Your task to perform on an android device: Open Google Image 0: 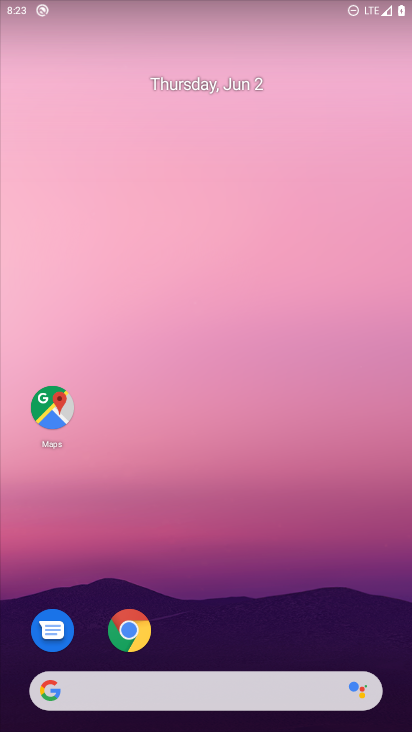
Step 0: drag from (151, 727) to (154, 132)
Your task to perform on an android device: Open Google Image 1: 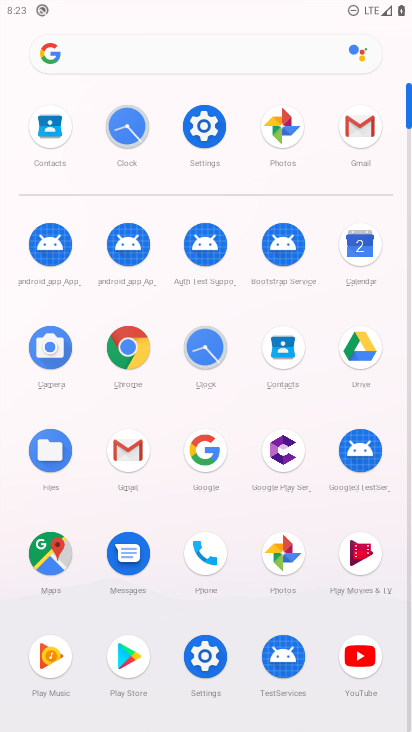
Step 1: click (199, 447)
Your task to perform on an android device: Open Google Image 2: 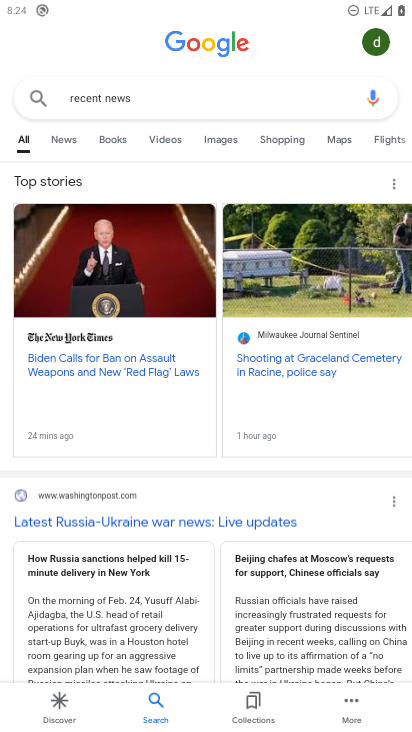
Step 2: task complete